Your task to perform on an android device: Show me productivity apps on the Play Store Image 0: 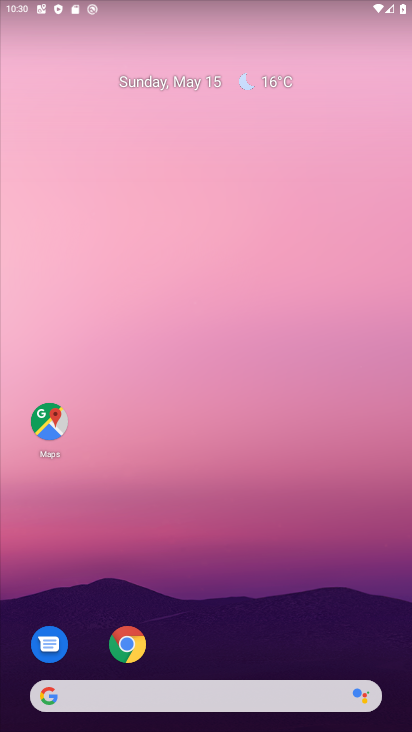
Step 0: drag from (275, 649) to (237, 120)
Your task to perform on an android device: Show me productivity apps on the Play Store Image 1: 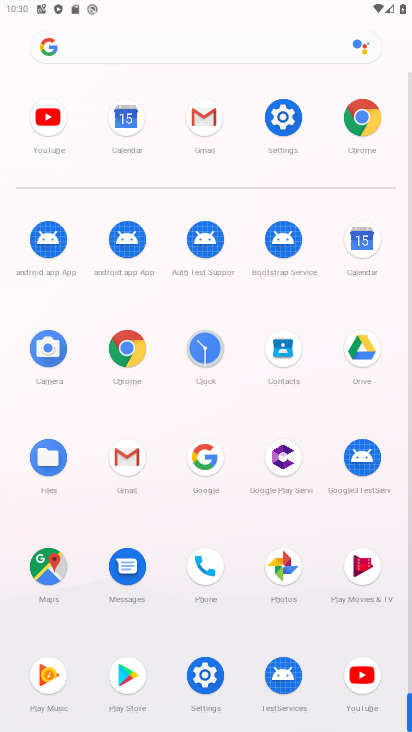
Step 1: click (130, 658)
Your task to perform on an android device: Show me productivity apps on the Play Store Image 2: 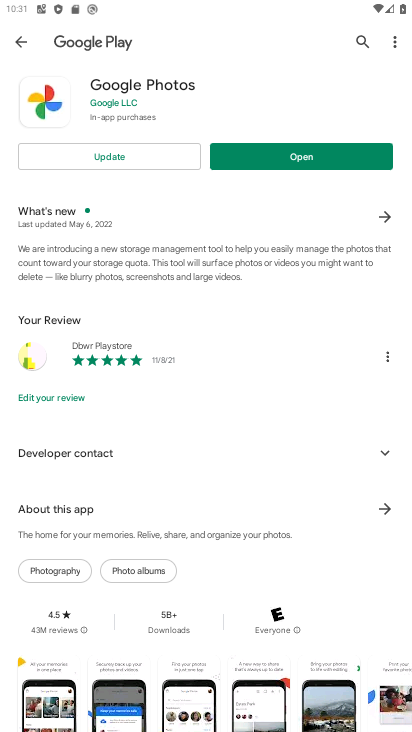
Step 2: click (17, 39)
Your task to perform on an android device: Show me productivity apps on the Play Store Image 3: 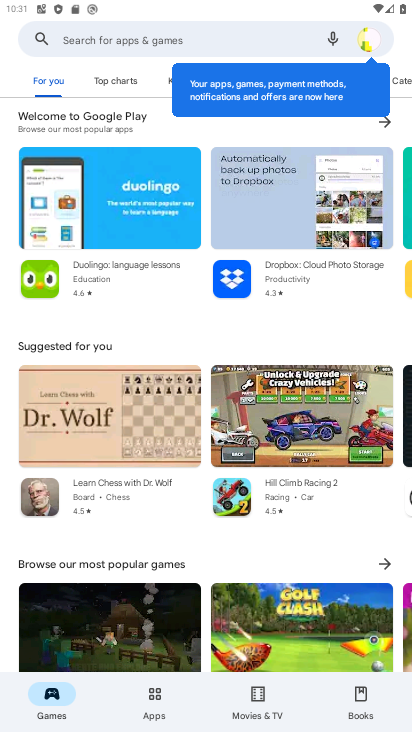
Step 3: click (159, 700)
Your task to perform on an android device: Show me productivity apps on the Play Store Image 4: 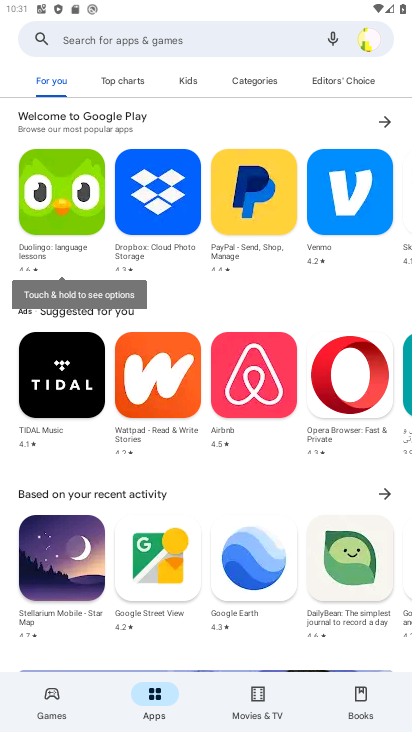
Step 4: click (234, 83)
Your task to perform on an android device: Show me productivity apps on the Play Store Image 5: 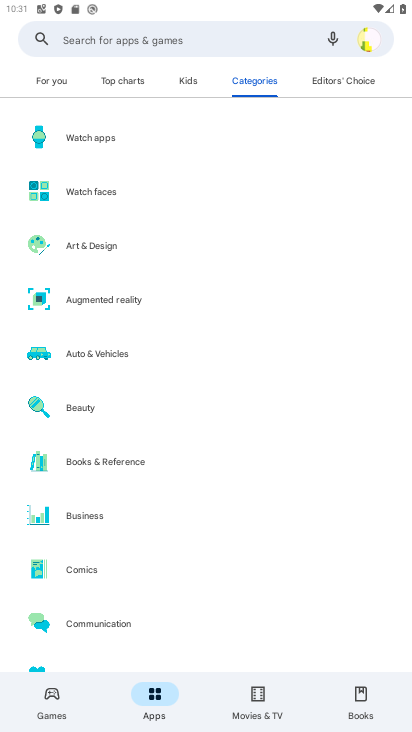
Step 5: drag from (217, 643) to (216, 0)
Your task to perform on an android device: Show me productivity apps on the Play Store Image 6: 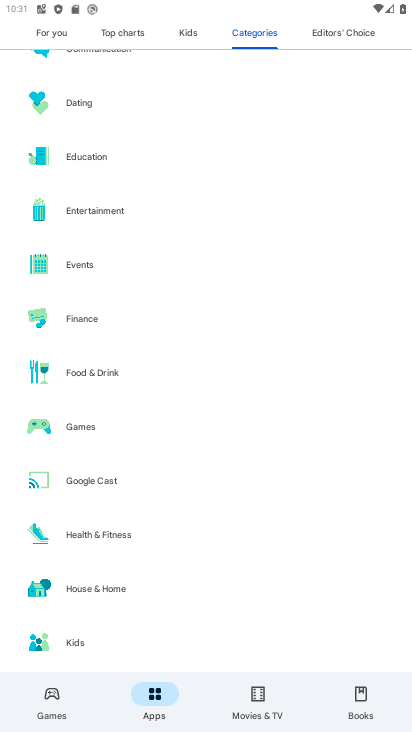
Step 6: drag from (193, 624) to (142, 2)
Your task to perform on an android device: Show me productivity apps on the Play Store Image 7: 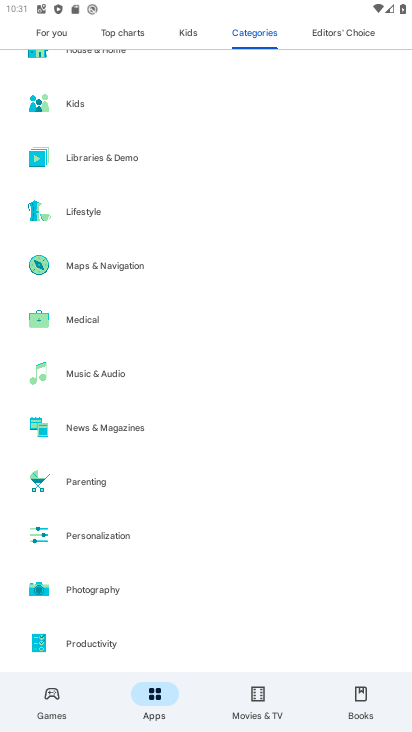
Step 7: click (104, 640)
Your task to perform on an android device: Show me productivity apps on the Play Store Image 8: 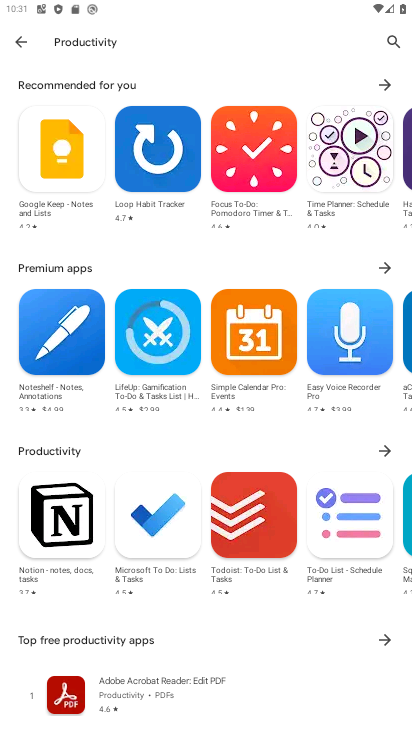
Step 8: task complete